Your task to perform on an android device: choose inbox layout in the gmail app Image 0: 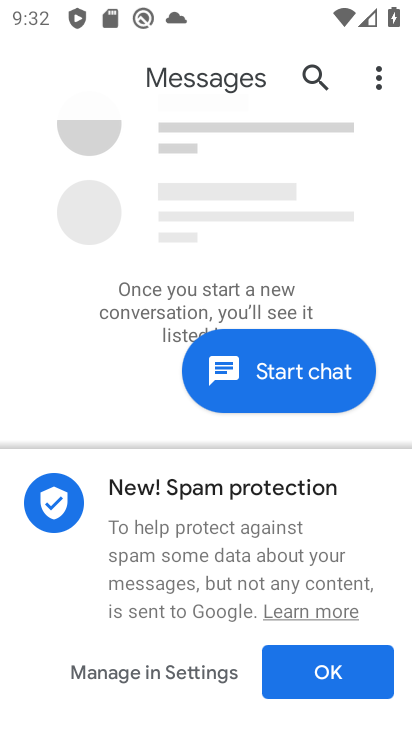
Step 0: press home button
Your task to perform on an android device: choose inbox layout in the gmail app Image 1: 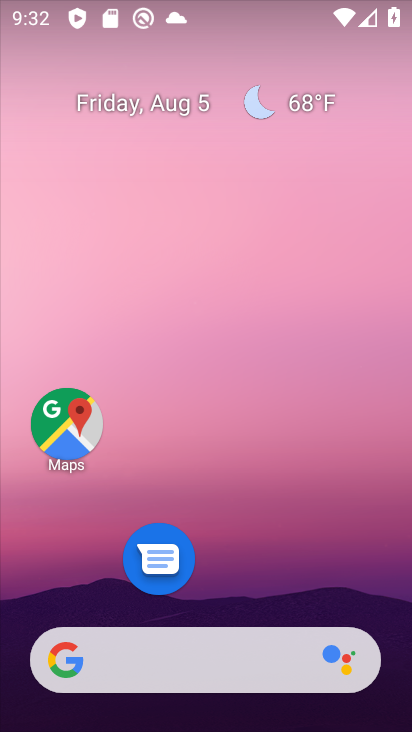
Step 1: drag from (261, 622) to (330, 130)
Your task to perform on an android device: choose inbox layout in the gmail app Image 2: 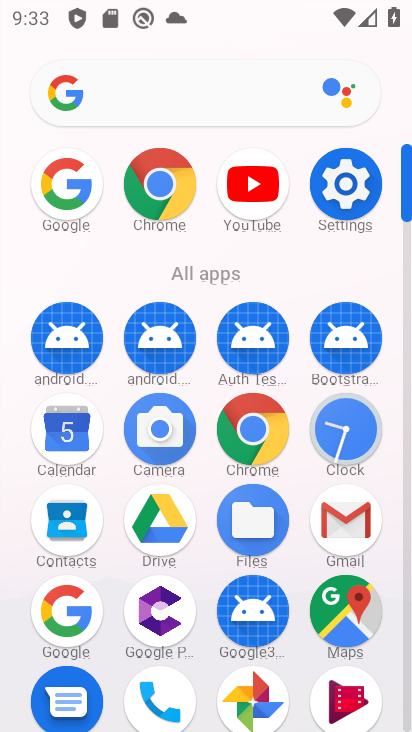
Step 2: click (346, 528)
Your task to perform on an android device: choose inbox layout in the gmail app Image 3: 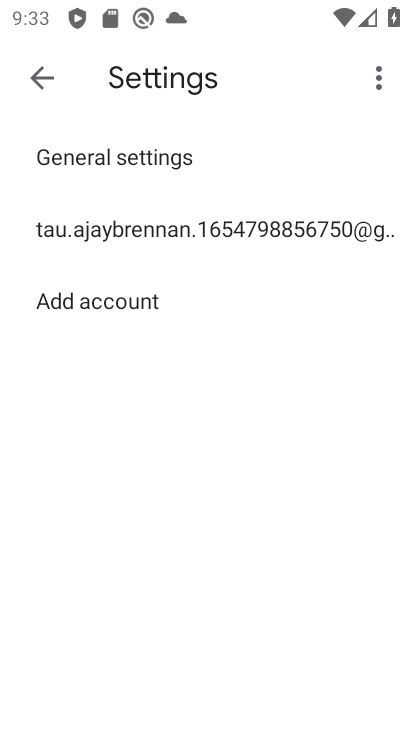
Step 3: click (130, 154)
Your task to perform on an android device: choose inbox layout in the gmail app Image 4: 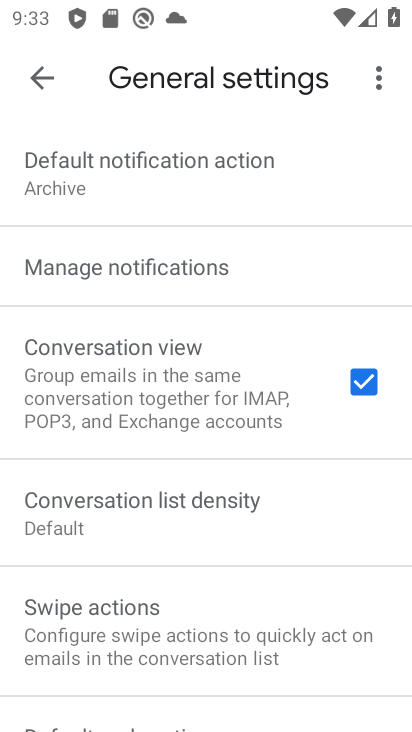
Step 4: task complete